Your task to perform on an android device: What is the recent news? Image 0: 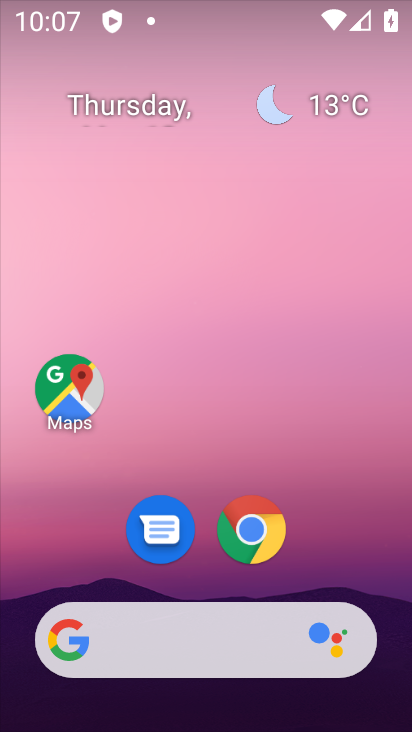
Step 0: drag from (309, 590) to (251, 113)
Your task to perform on an android device: What is the recent news? Image 1: 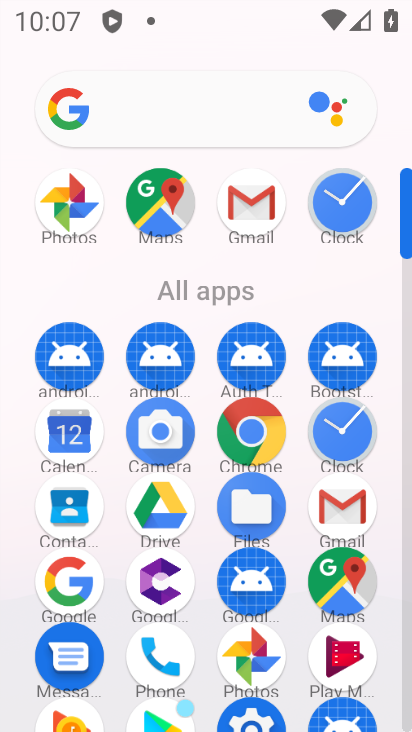
Step 1: drag from (75, 592) to (114, 204)
Your task to perform on an android device: What is the recent news? Image 2: 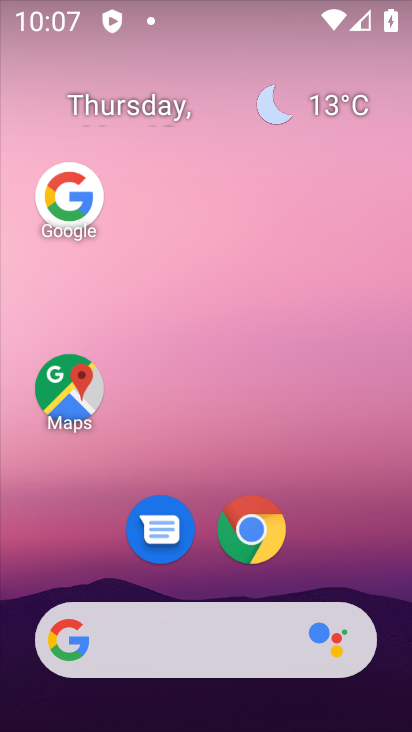
Step 2: click (82, 184)
Your task to perform on an android device: What is the recent news? Image 3: 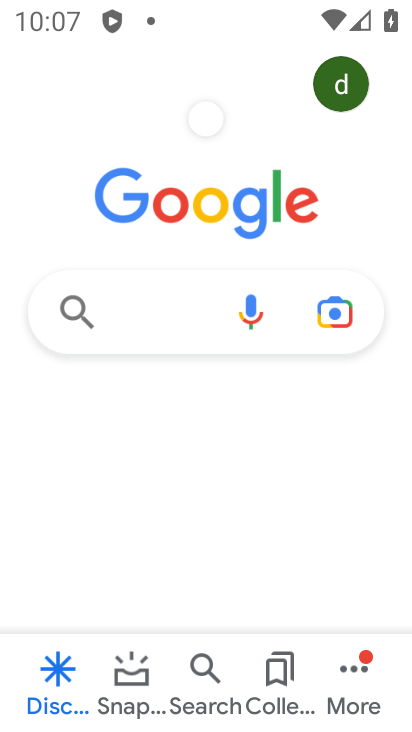
Step 3: drag from (158, 306) to (95, 306)
Your task to perform on an android device: What is the recent news? Image 4: 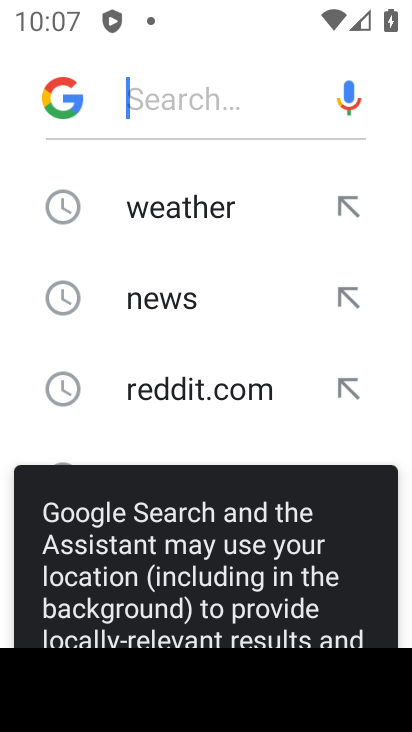
Step 4: drag from (210, 424) to (222, 121)
Your task to perform on an android device: What is the recent news? Image 5: 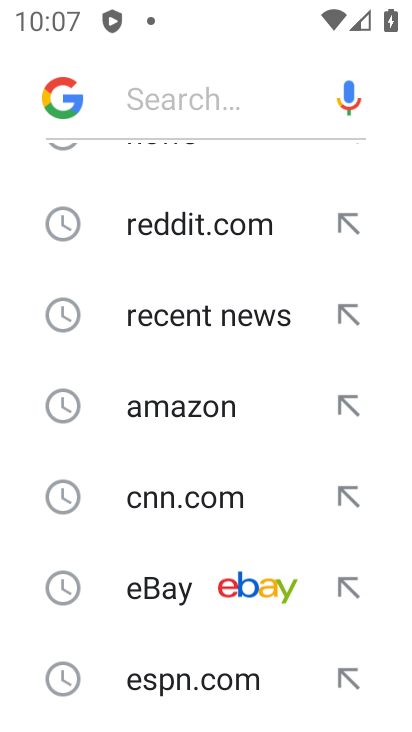
Step 5: click (225, 336)
Your task to perform on an android device: What is the recent news? Image 6: 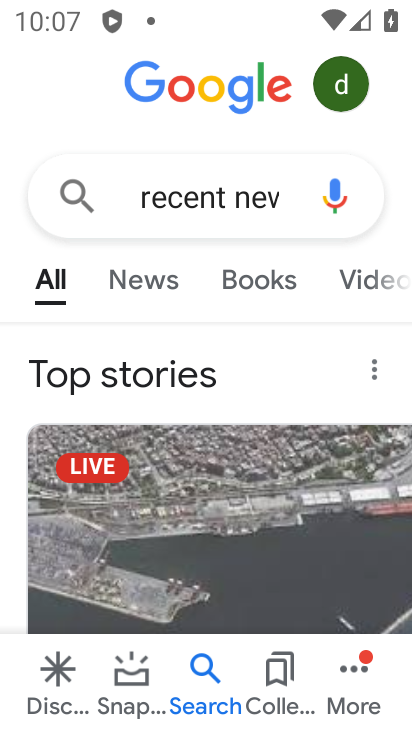
Step 6: task complete